Your task to perform on an android device: empty trash in google photos Image 0: 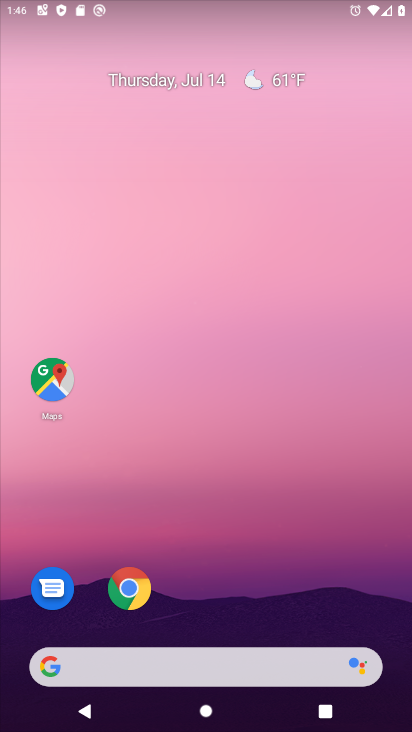
Step 0: drag from (236, 595) to (242, 139)
Your task to perform on an android device: empty trash in google photos Image 1: 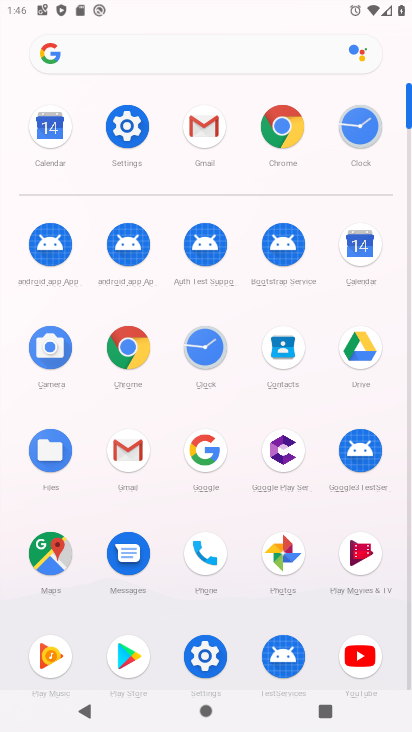
Step 1: click (272, 544)
Your task to perform on an android device: empty trash in google photos Image 2: 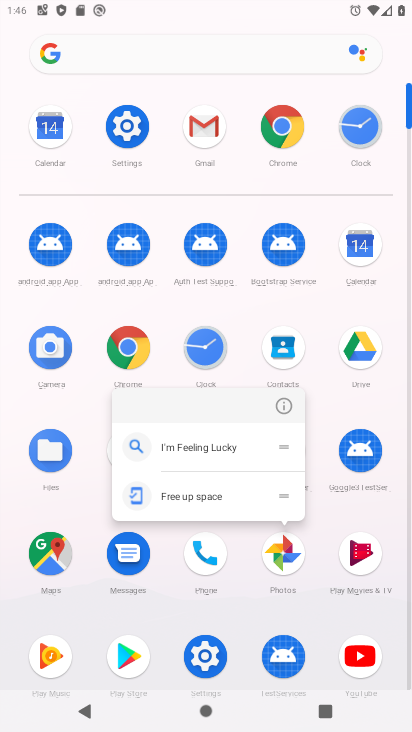
Step 2: click (279, 548)
Your task to perform on an android device: empty trash in google photos Image 3: 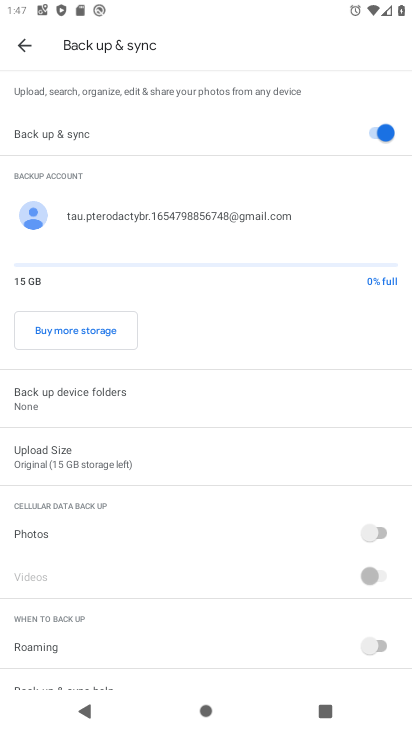
Step 3: drag from (197, 336) to (220, 60)
Your task to perform on an android device: empty trash in google photos Image 4: 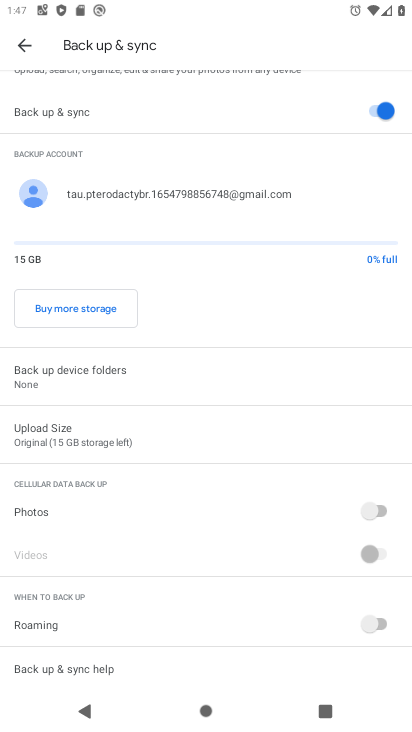
Step 4: click (26, 36)
Your task to perform on an android device: empty trash in google photos Image 5: 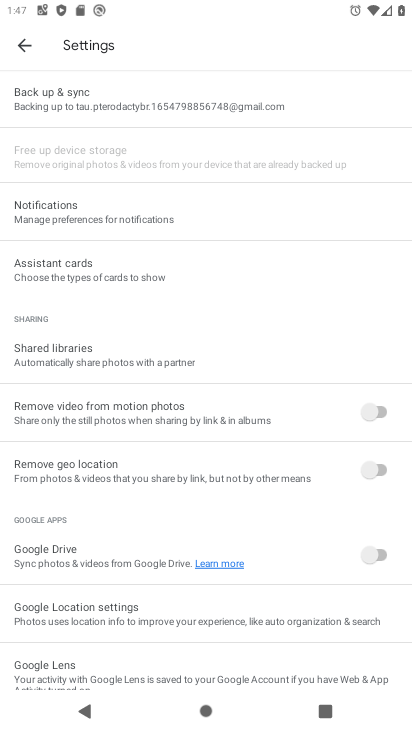
Step 5: click (26, 56)
Your task to perform on an android device: empty trash in google photos Image 6: 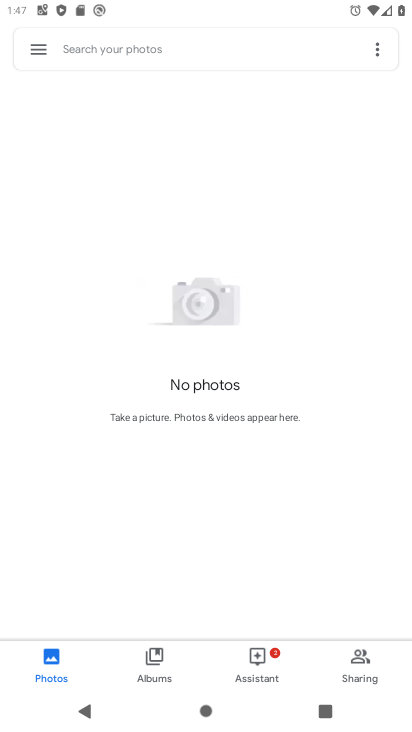
Step 6: click (36, 48)
Your task to perform on an android device: empty trash in google photos Image 7: 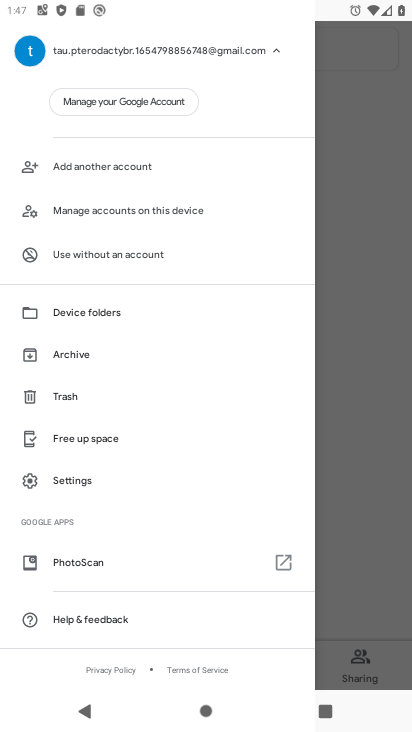
Step 7: click (98, 396)
Your task to perform on an android device: empty trash in google photos Image 8: 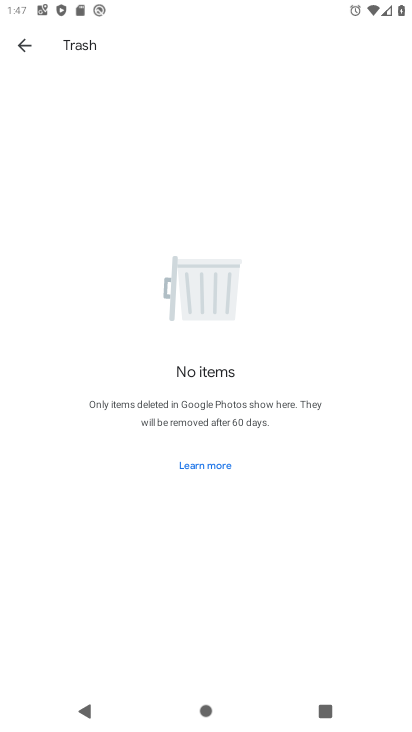
Step 8: task complete